Your task to perform on an android device: Open Google Chrome Image 0: 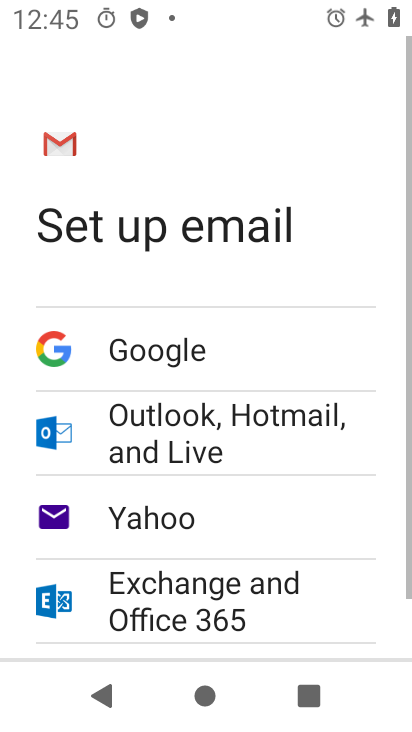
Step 0: press home button
Your task to perform on an android device: Open Google Chrome Image 1: 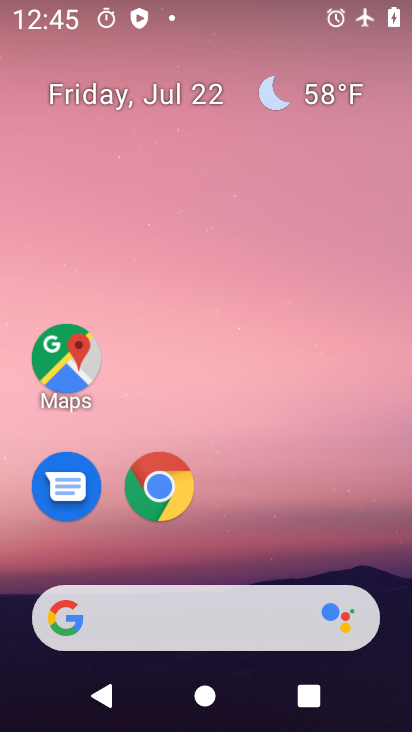
Step 1: drag from (319, 530) to (338, 196)
Your task to perform on an android device: Open Google Chrome Image 2: 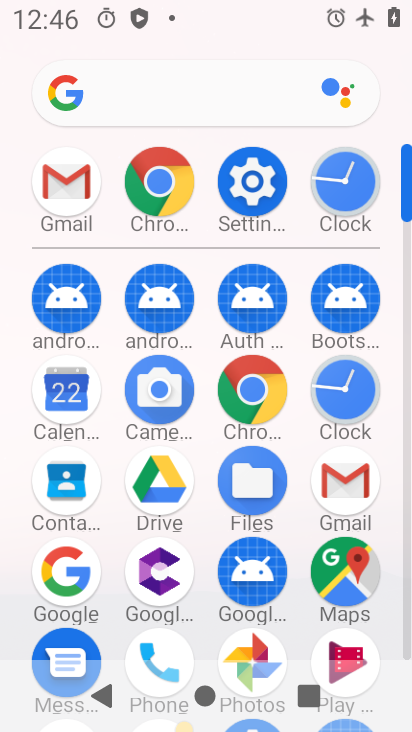
Step 2: click (256, 390)
Your task to perform on an android device: Open Google Chrome Image 3: 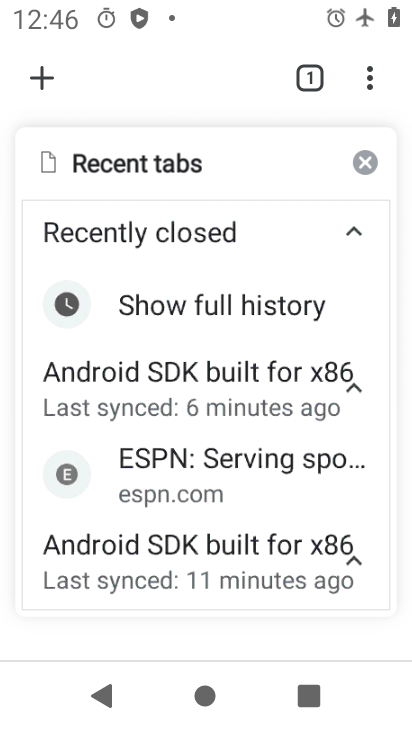
Step 3: task complete